Your task to perform on an android device: delete the emails in spam in the gmail app Image 0: 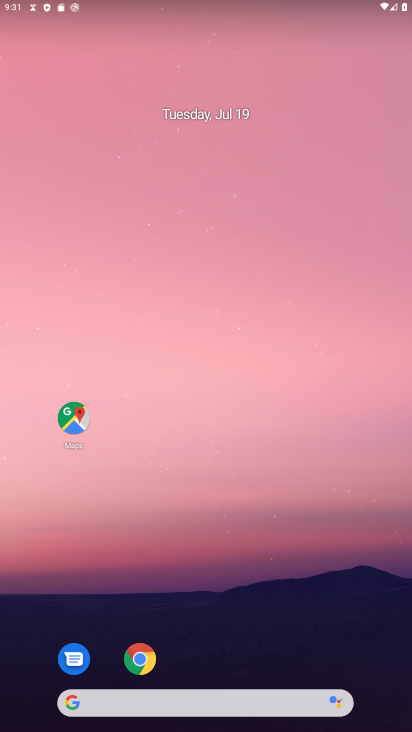
Step 0: drag from (207, 664) to (247, 8)
Your task to perform on an android device: delete the emails in spam in the gmail app Image 1: 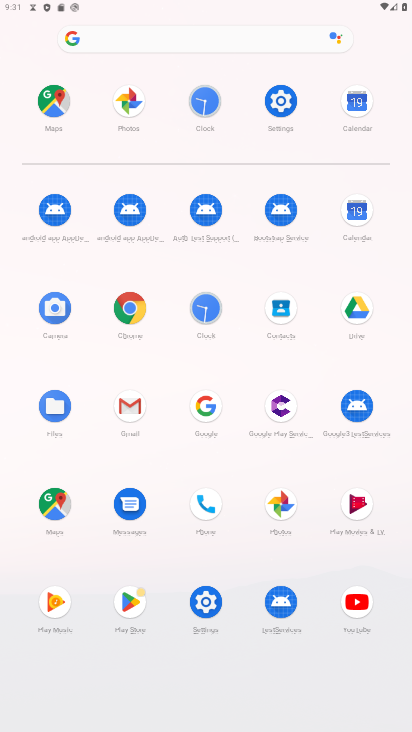
Step 1: click (108, 390)
Your task to perform on an android device: delete the emails in spam in the gmail app Image 2: 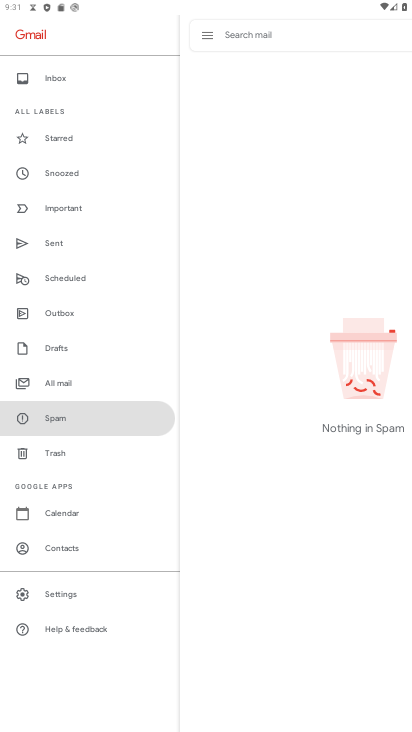
Step 2: click (101, 416)
Your task to perform on an android device: delete the emails in spam in the gmail app Image 3: 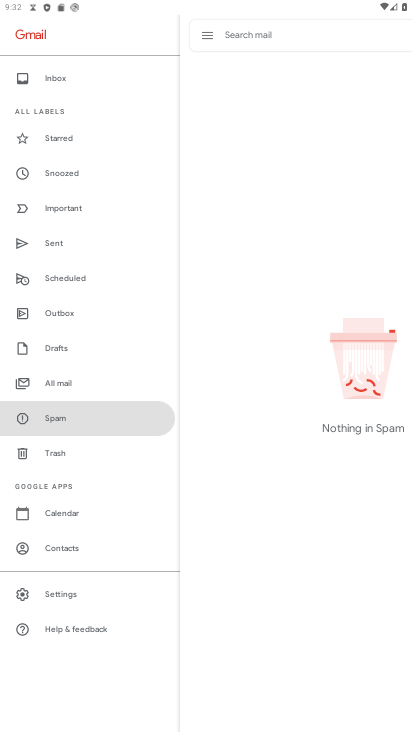
Step 3: click (26, 421)
Your task to perform on an android device: delete the emails in spam in the gmail app Image 4: 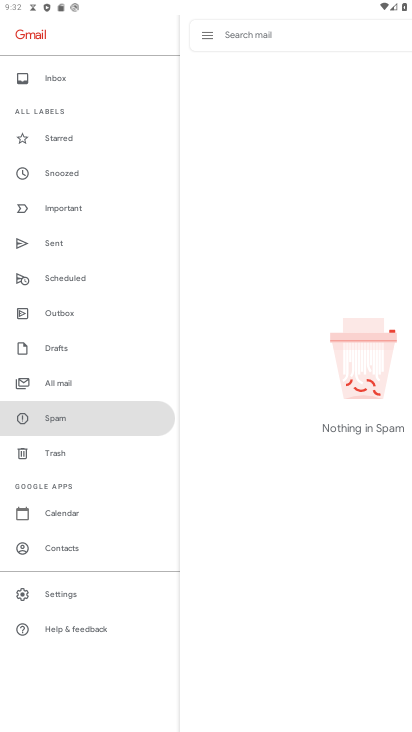
Step 4: click (114, 406)
Your task to perform on an android device: delete the emails in spam in the gmail app Image 5: 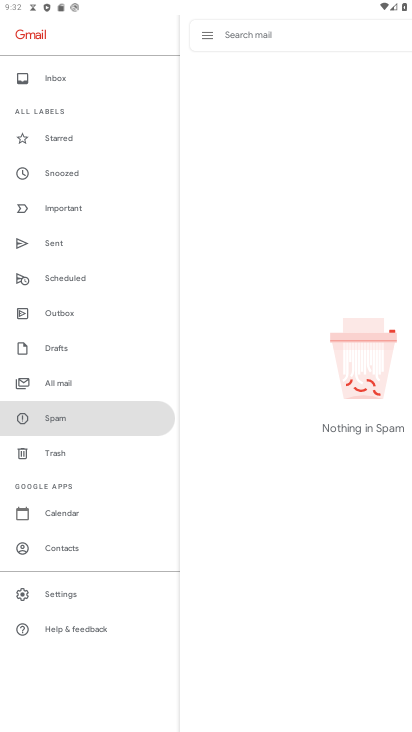
Step 5: task complete